Your task to perform on an android device: turn vacation reply on in the gmail app Image 0: 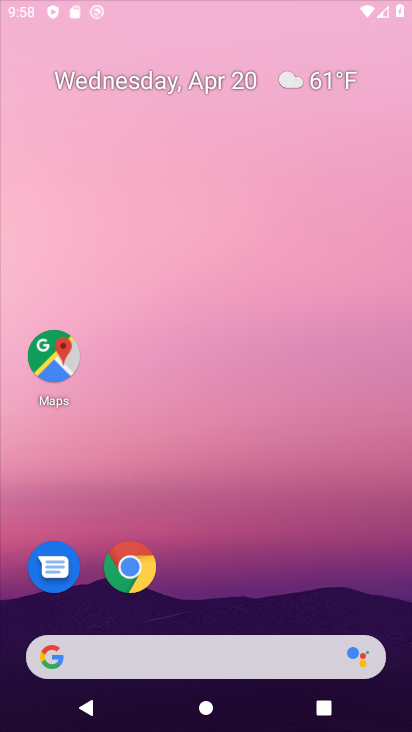
Step 0: click (136, 568)
Your task to perform on an android device: turn vacation reply on in the gmail app Image 1: 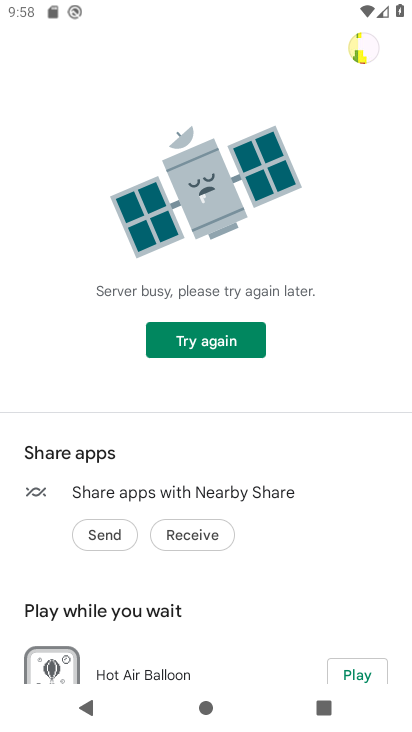
Step 1: press back button
Your task to perform on an android device: turn vacation reply on in the gmail app Image 2: 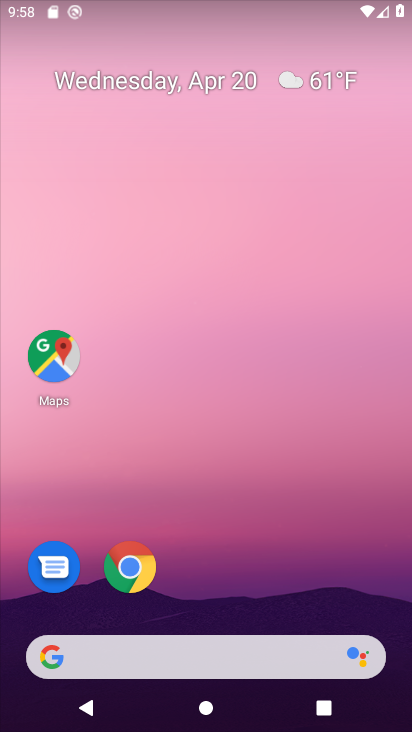
Step 2: drag from (231, 466) to (266, 126)
Your task to perform on an android device: turn vacation reply on in the gmail app Image 3: 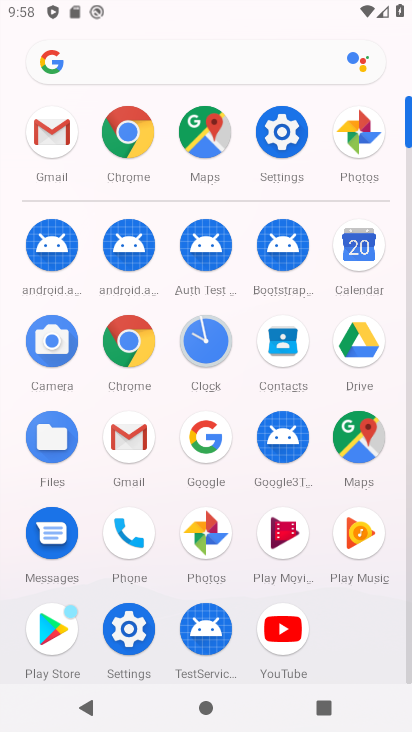
Step 3: click (51, 136)
Your task to perform on an android device: turn vacation reply on in the gmail app Image 4: 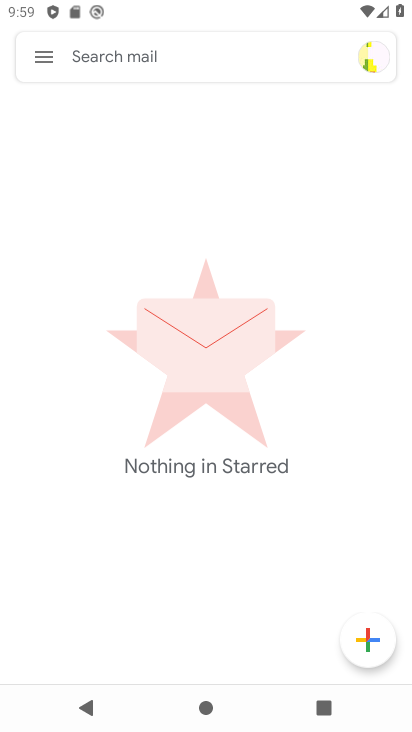
Step 4: click (49, 52)
Your task to perform on an android device: turn vacation reply on in the gmail app Image 5: 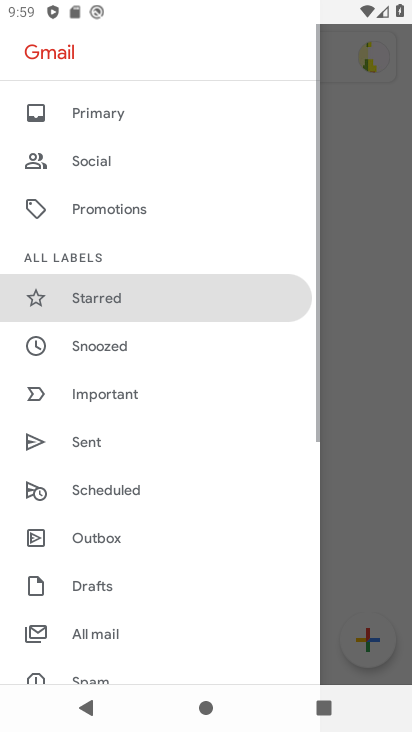
Step 5: drag from (164, 583) to (258, 25)
Your task to perform on an android device: turn vacation reply on in the gmail app Image 6: 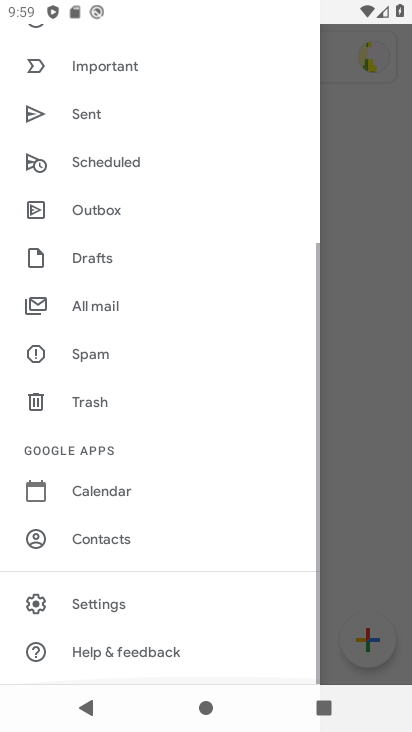
Step 6: click (106, 602)
Your task to perform on an android device: turn vacation reply on in the gmail app Image 7: 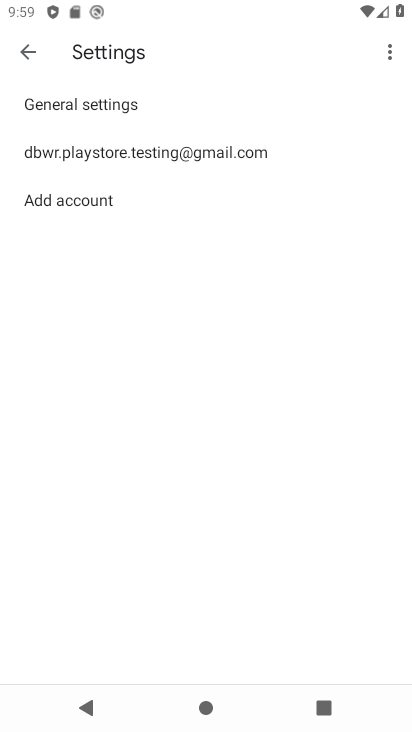
Step 7: click (151, 157)
Your task to perform on an android device: turn vacation reply on in the gmail app Image 8: 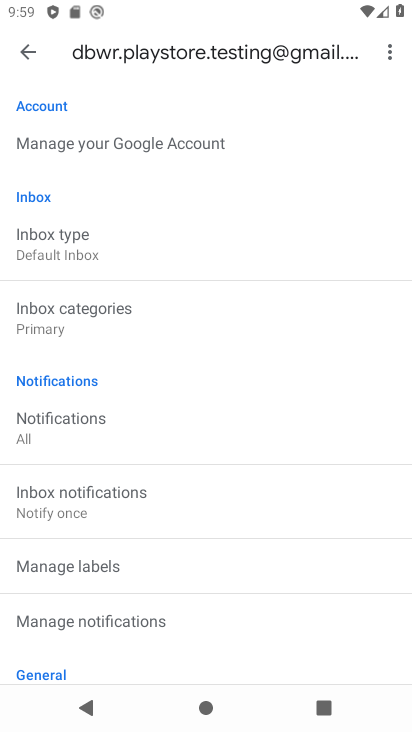
Step 8: drag from (164, 545) to (309, 76)
Your task to perform on an android device: turn vacation reply on in the gmail app Image 9: 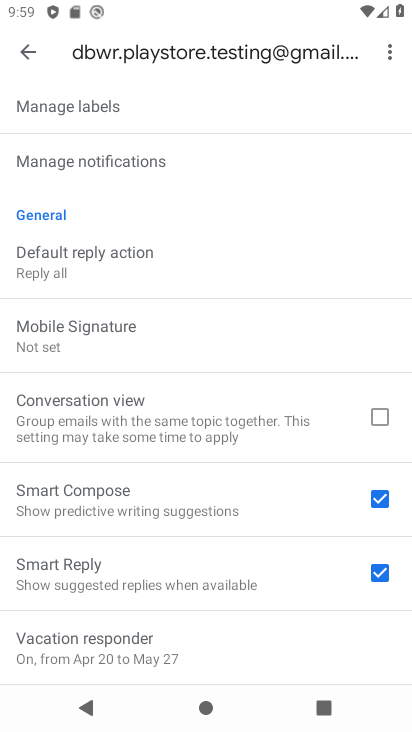
Step 9: click (77, 657)
Your task to perform on an android device: turn vacation reply on in the gmail app Image 10: 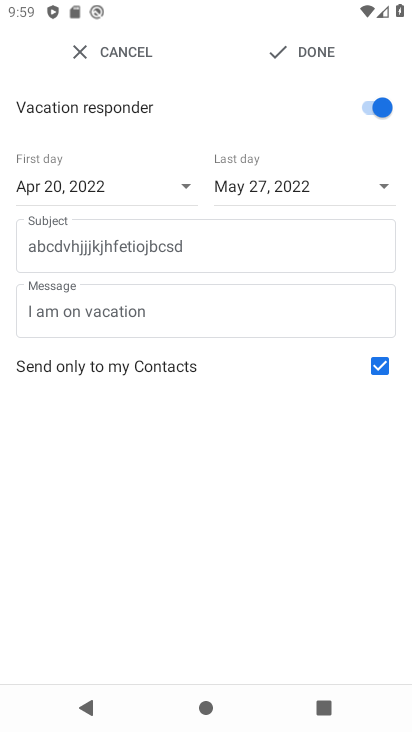
Step 10: task complete